Your task to perform on an android device: turn on the 24-hour format for clock Image 0: 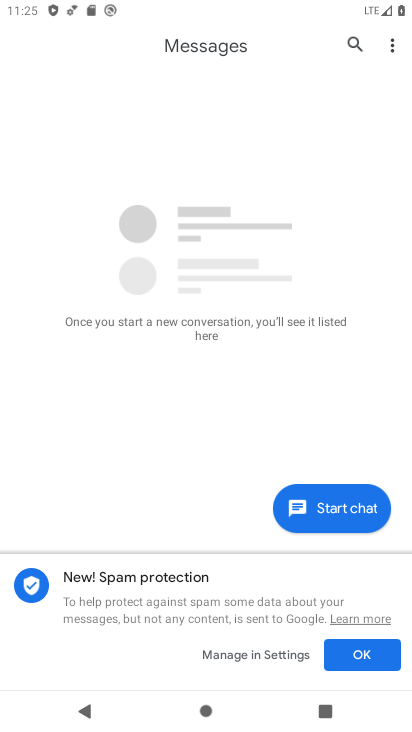
Step 0: drag from (210, 536) to (249, 219)
Your task to perform on an android device: turn on the 24-hour format for clock Image 1: 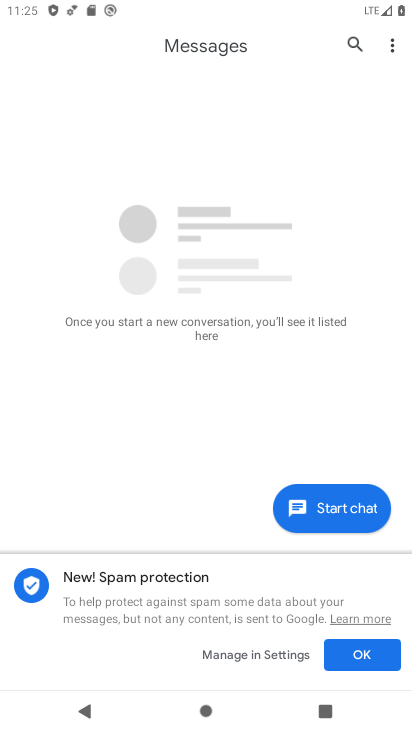
Step 1: press home button
Your task to perform on an android device: turn on the 24-hour format for clock Image 2: 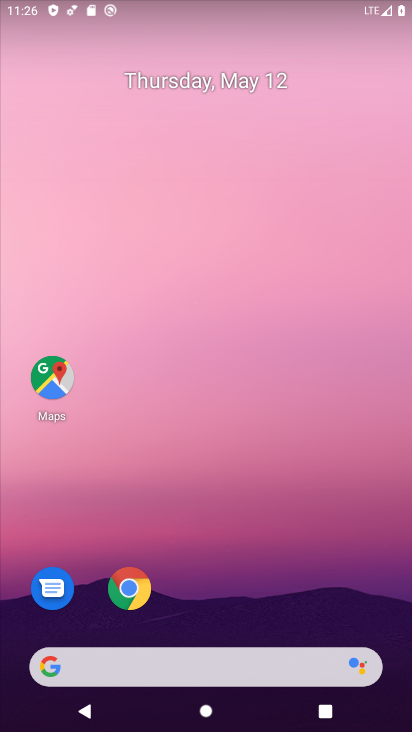
Step 2: drag from (183, 603) to (223, 139)
Your task to perform on an android device: turn on the 24-hour format for clock Image 3: 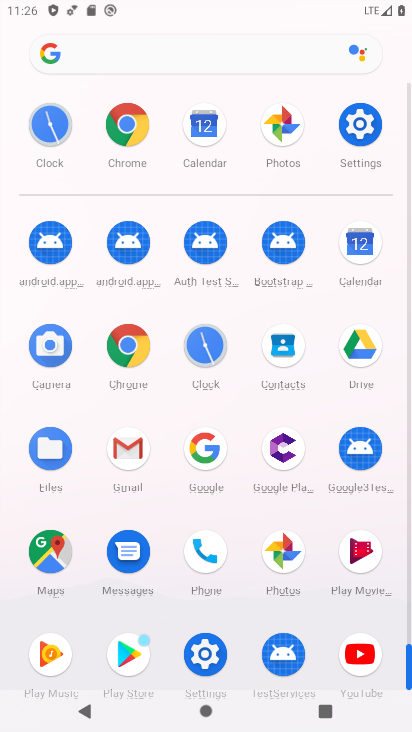
Step 3: click (214, 345)
Your task to perform on an android device: turn on the 24-hour format for clock Image 4: 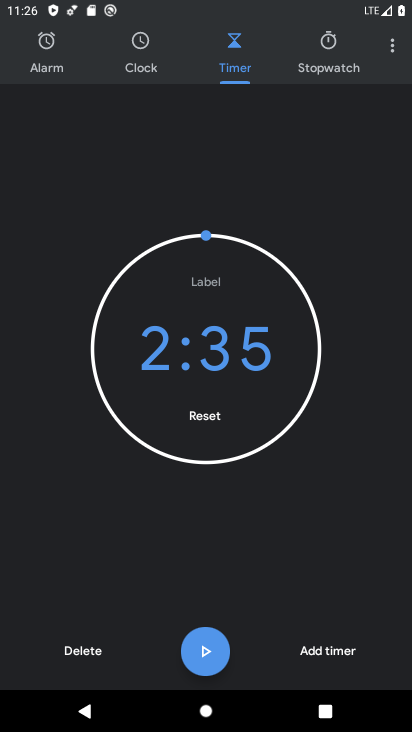
Step 4: click (399, 38)
Your task to perform on an android device: turn on the 24-hour format for clock Image 5: 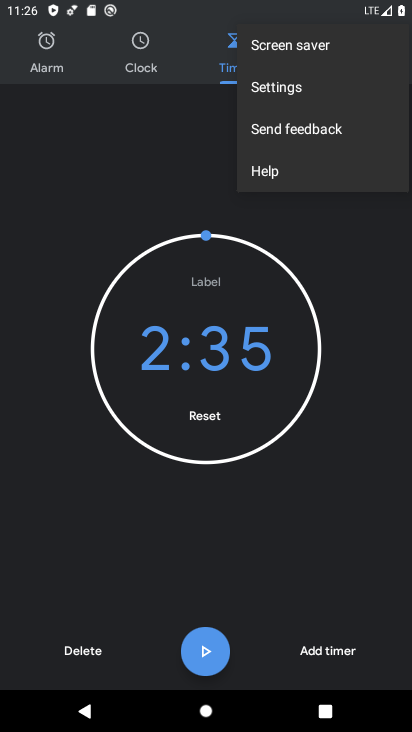
Step 5: click (295, 84)
Your task to perform on an android device: turn on the 24-hour format for clock Image 6: 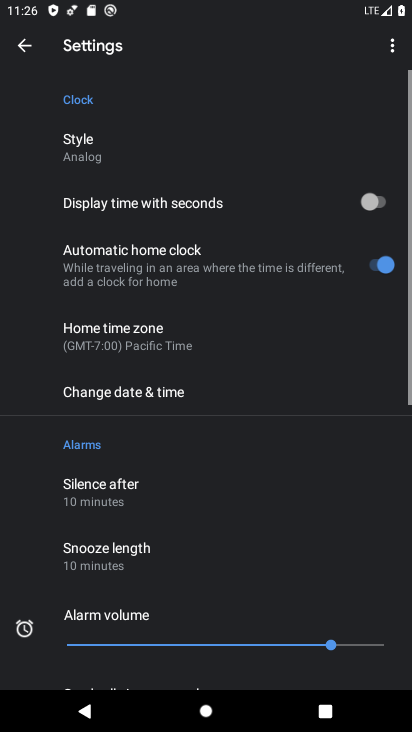
Step 6: click (190, 390)
Your task to perform on an android device: turn on the 24-hour format for clock Image 7: 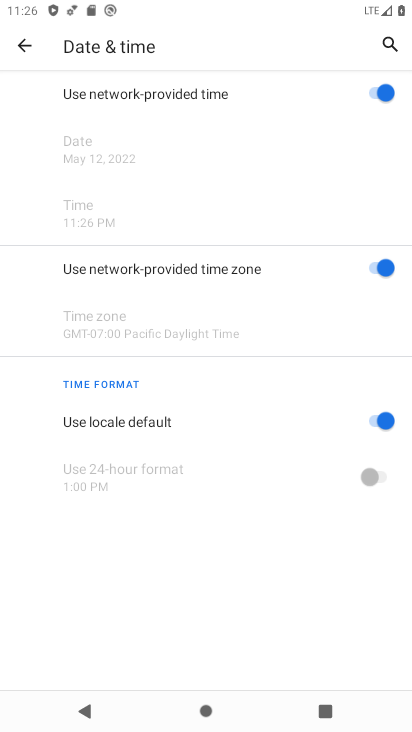
Step 7: click (384, 426)
Your task to perform on an android device: turn on the 24-hour format for clock Image 8: 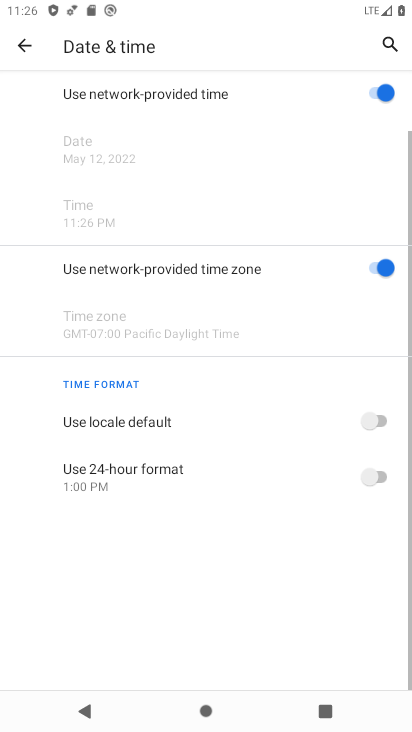
Step 8: click (374, 469)
Your task to perform on an android device: turn on the 24-hour format for clock Image 9: 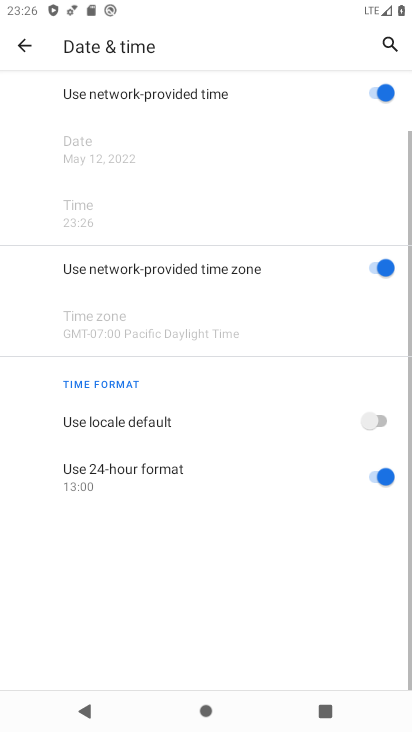
Step 9: task complete